Your task to perform on an android device: check out phone information Image 0: 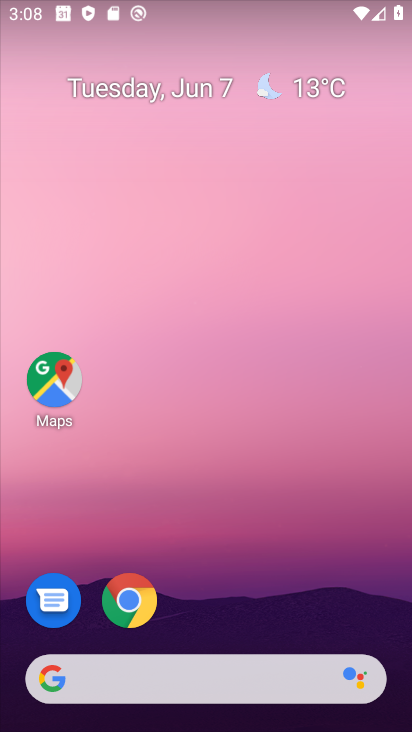
Step 0: drag from (216, 596) to (147, 104)
Your task to perform on an android device: check out phone information Image 1: 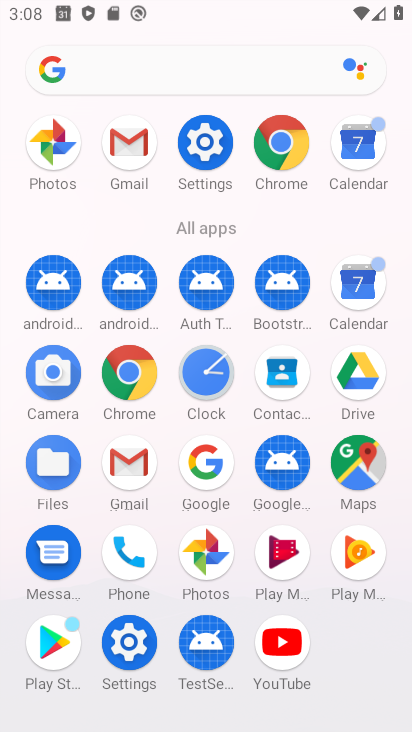
Step 1: click (207, 137)
Your task to perform on an android device: check out phone information Image 2: 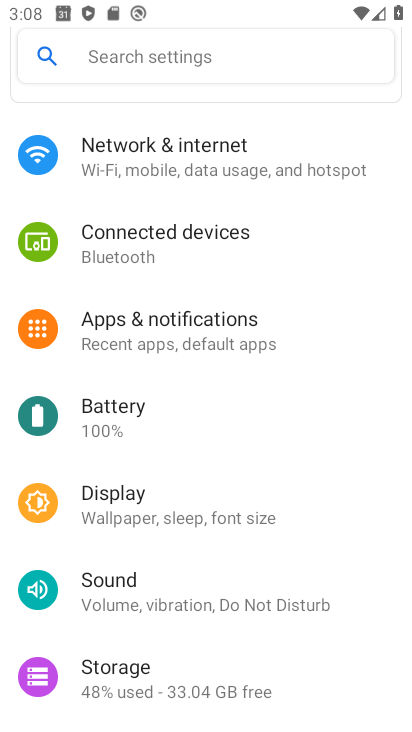
Step 2: drag from (238, 639) to (238, 66)
Your task to perform on an android device: check out phone information Image 3: 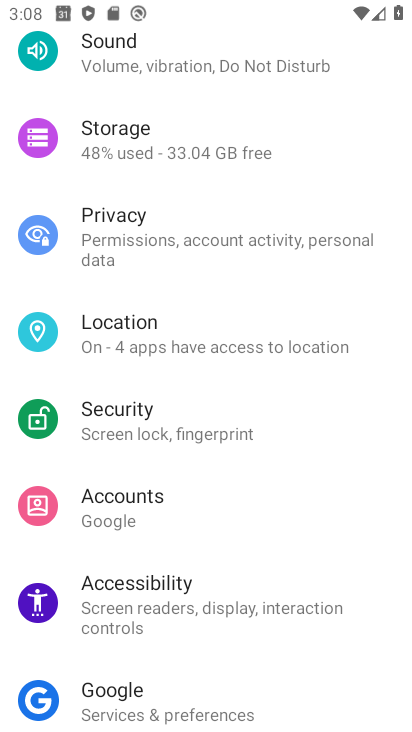
Step 3: drag from (268, 663) to (220, 111)
Your task to perform on an android device: check out phone information Image 4: 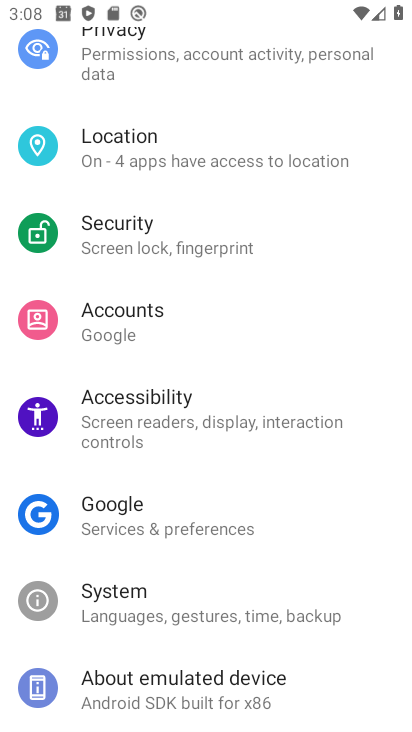
Step 4: click (161, 684)
Your task to perform on an android device: check out phone information Image 5: 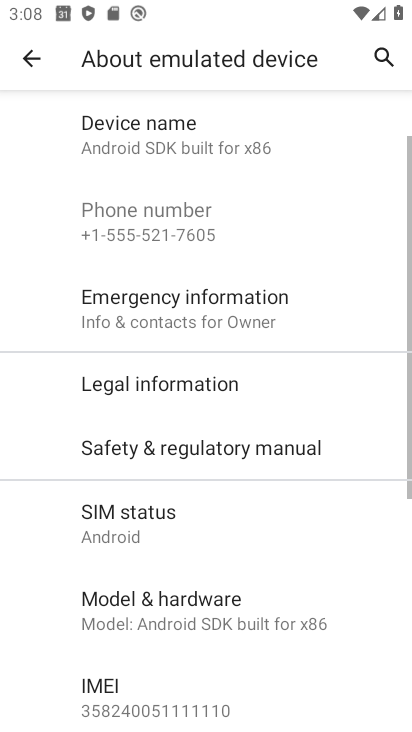
Step 5: task complete